Your task to perform on an android device: turn on the 12-hour format for clock Image 0: 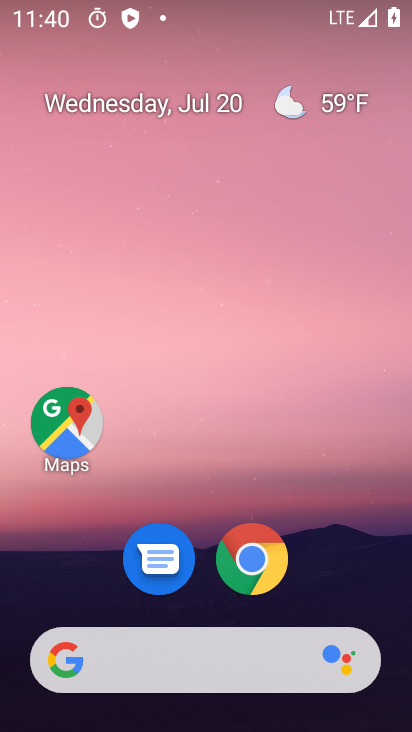
Step 0: drag from (67, 608) to (199, 12)
Your task to perform on an android device: turn on the 12-hour format for clock Image 1: 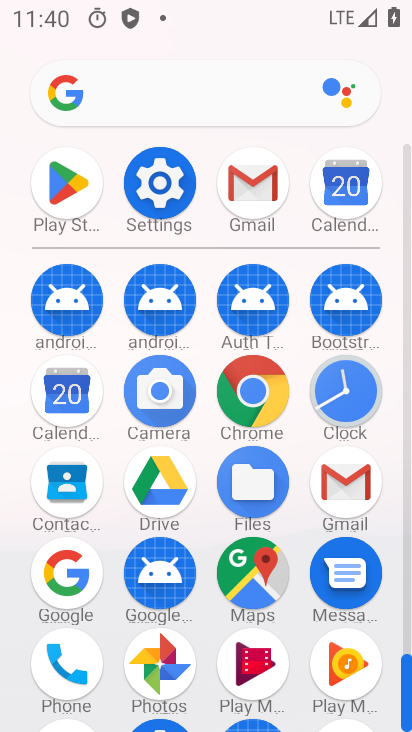
Step 1: click (364, 405)
Your task to perform on an android device: turn on the 12-hour format for clock Image 2: 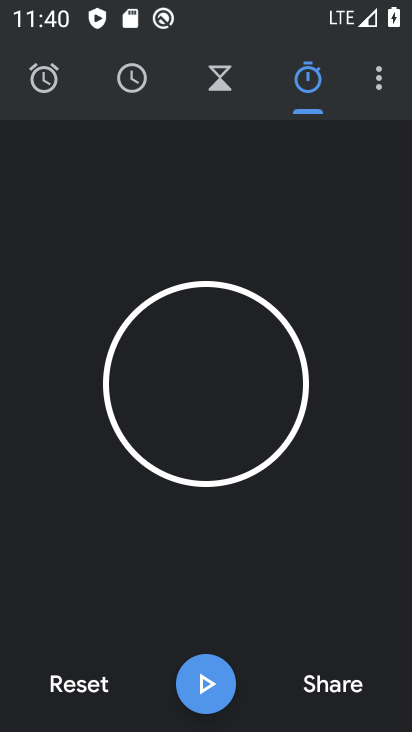
Step 2: click (375, 71)
Your task to perform on an android device: turn on the 12-hour format for clock Image 3: 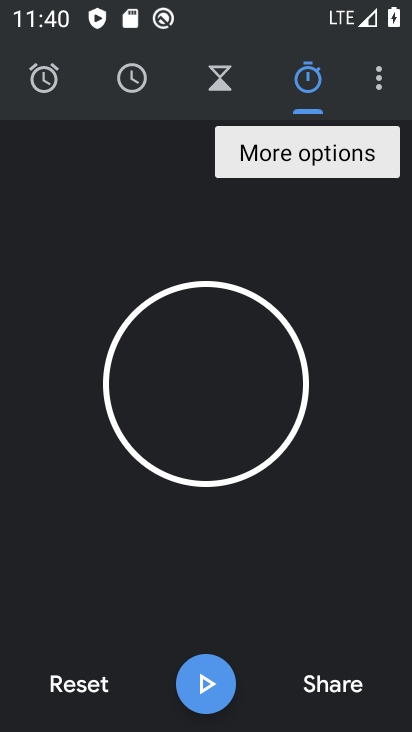
Step 3: click (384, 80)
Your task to perform on an android device: turn on the 12-hour format for clock Image 4: 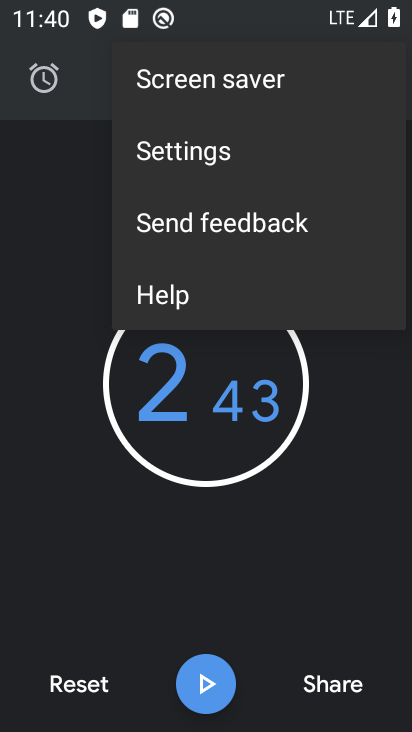
Step 4: click (230, 148)
Your task to perform on an android device: turn on the 12-hour format for clock Image 5: 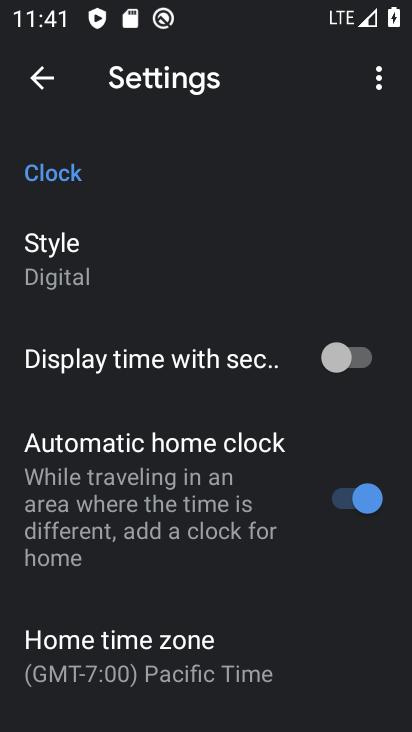
Step 5: drag from (156, 667) to (246, 202)
Your task to perform on an android device: turn on the 12-hour format for clock Image 6: 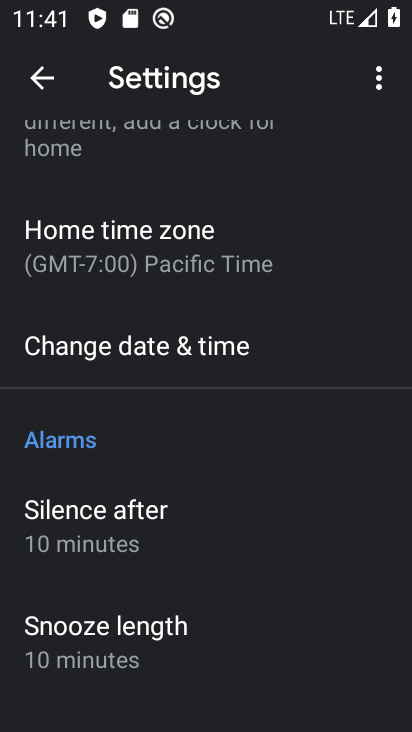
Step 6: click (192, 357)
Your task to perform on an android device: turn on the 12-hour format for clock Image 7: 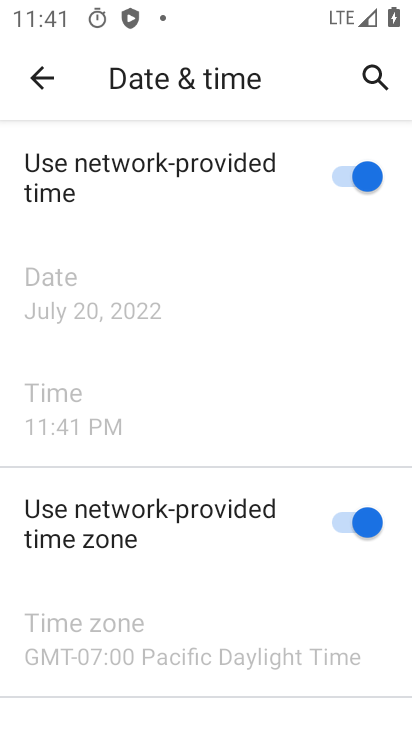
Step 7: task complete